Your task to perform on an android device: turn vacation reply on in the gmail app Image 0: 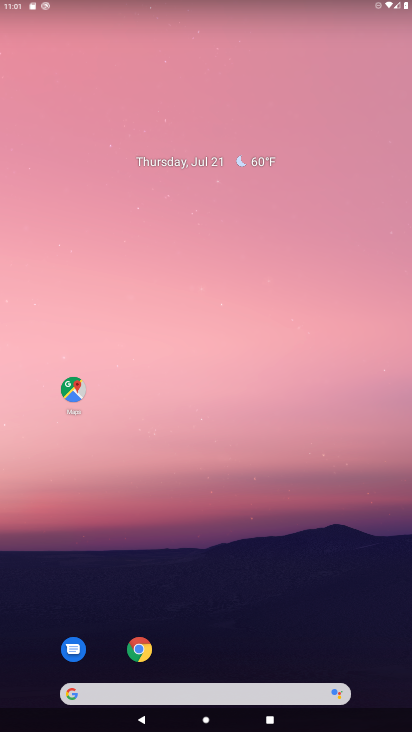
Step 0: drag from (394, 641) to (362, 137)
Your task to perform on an android device: turn vacation reply on in the gmail app Image 1: 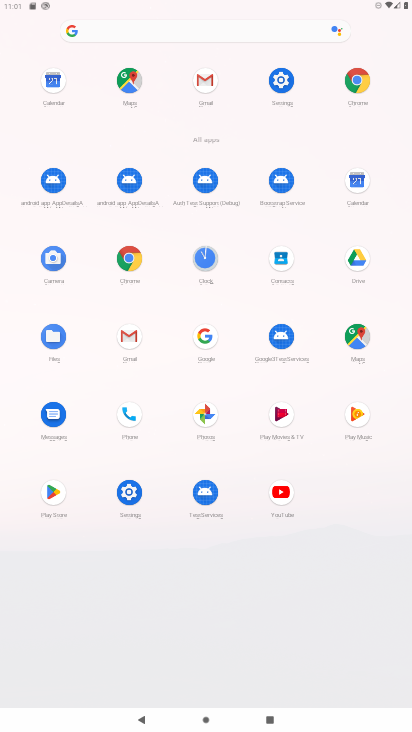
Step 1: click (125, 334)
Your task to perform on an android device: turn vacation reply on in the gmail app Image 2: 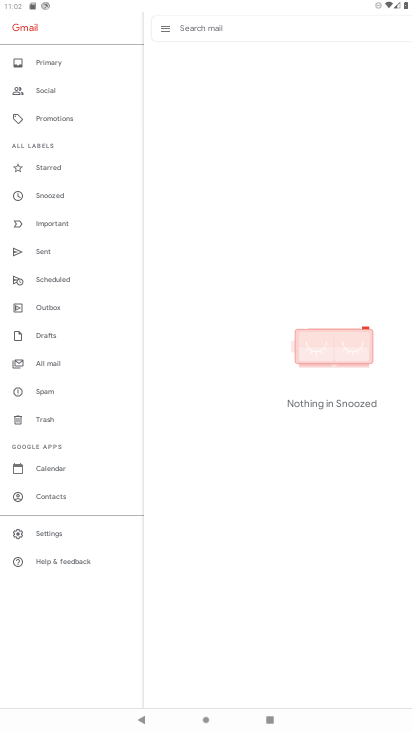
Step 2: click (35, 530)
Your task to perform on an android device: turn vacation reply on in the gmail app Image 3: 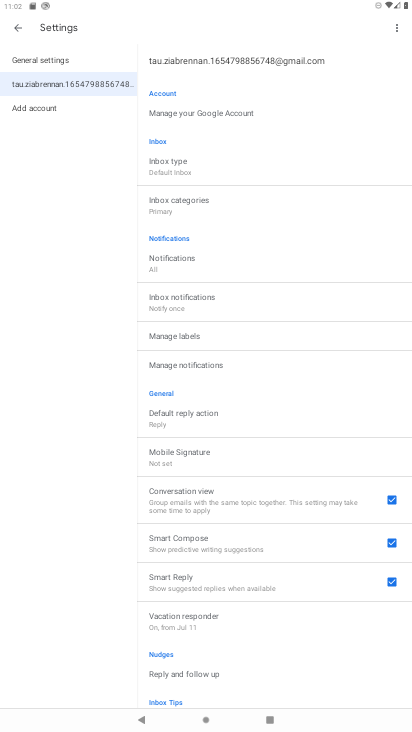
Step 3: click (186, 617)
Your task to perform on an android device: turn vacation reply on in the gmail app Image 4: 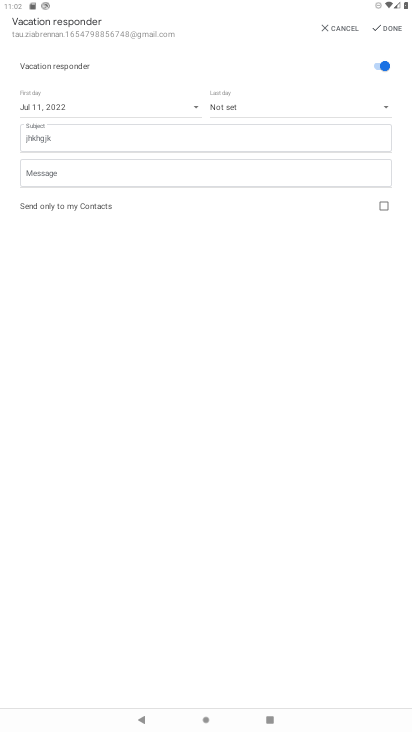
Step 4: task complete